Your task to perform on an android device: Open the Play Movies app and select the watchlist tab. Image 0: 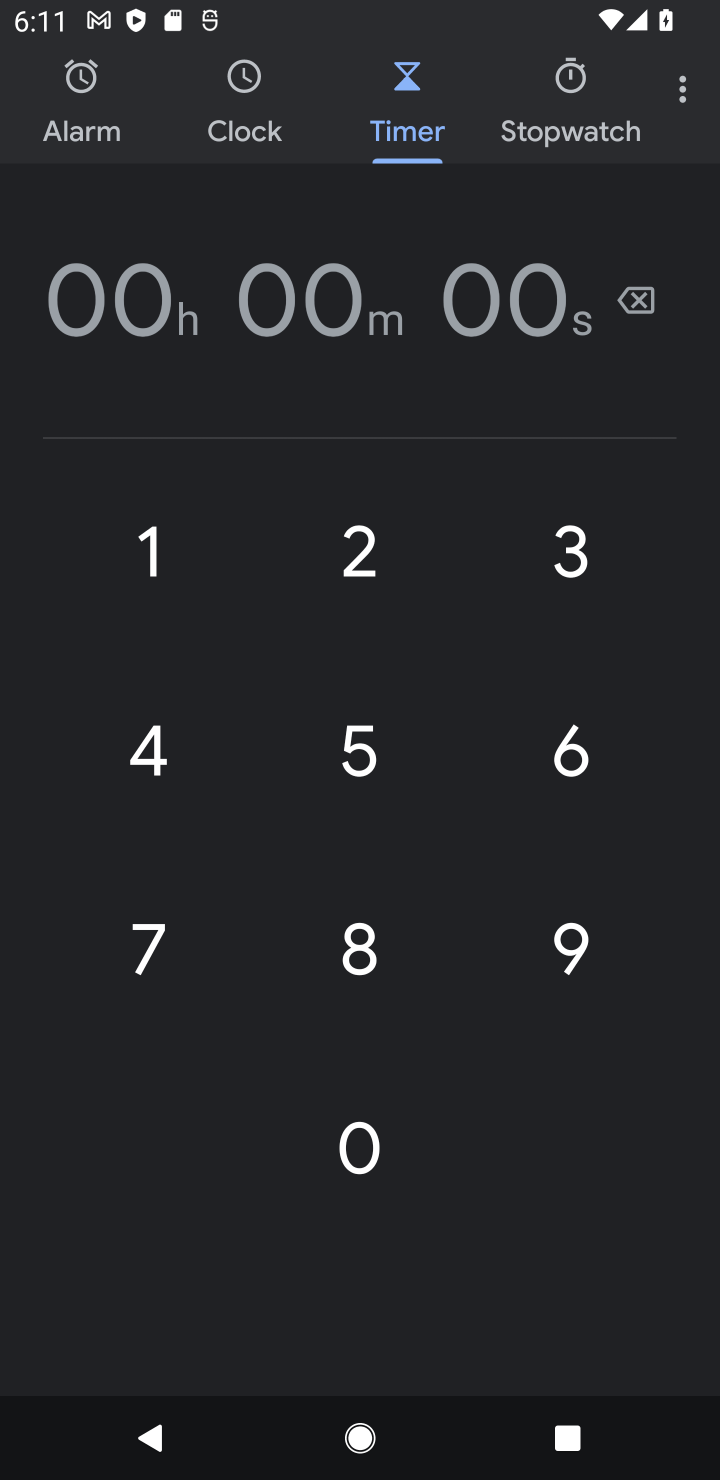
Step 0: press home button
Your task to perform on an android device: Open the Play Movies app and select the watchlist tab. Image 1: 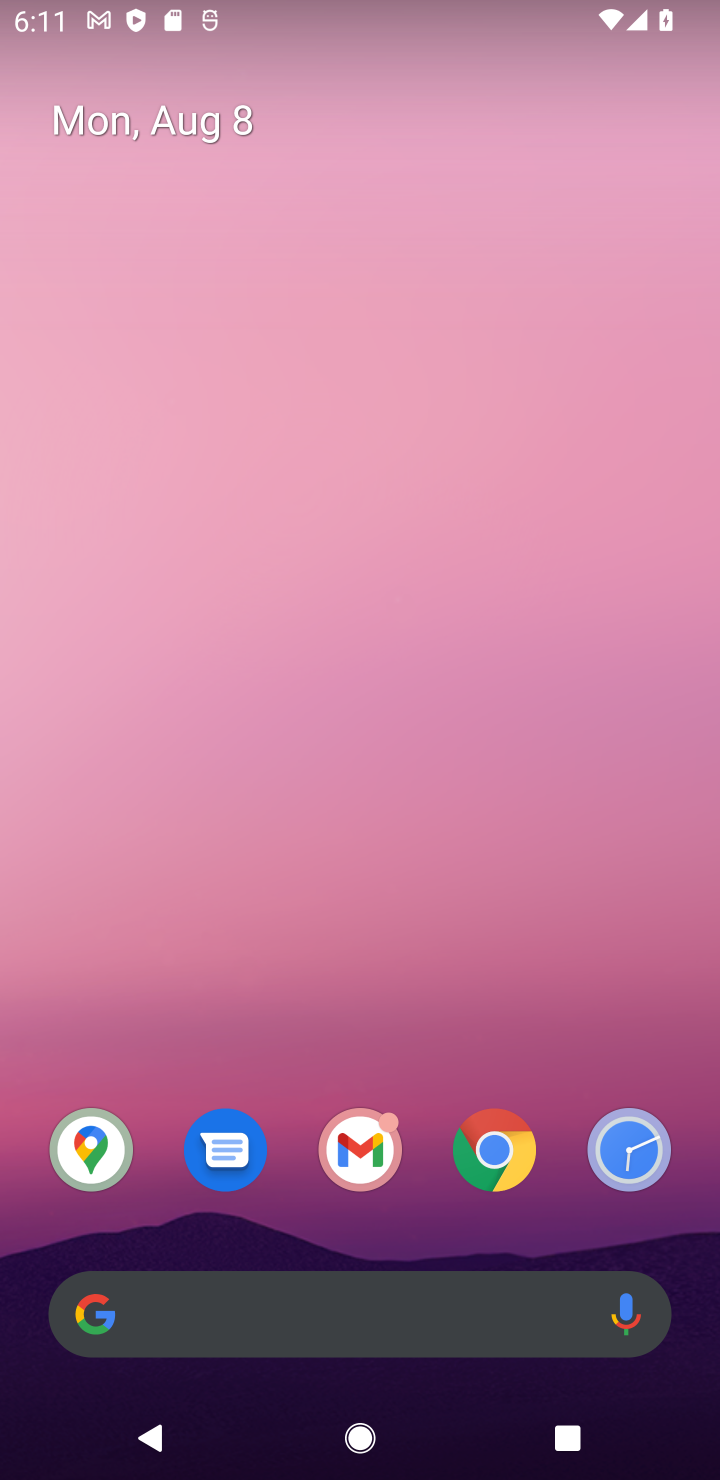
Step 1: task complete